Your task to perform on an android device: open chrome and create a bookmark for the current page Image 0: 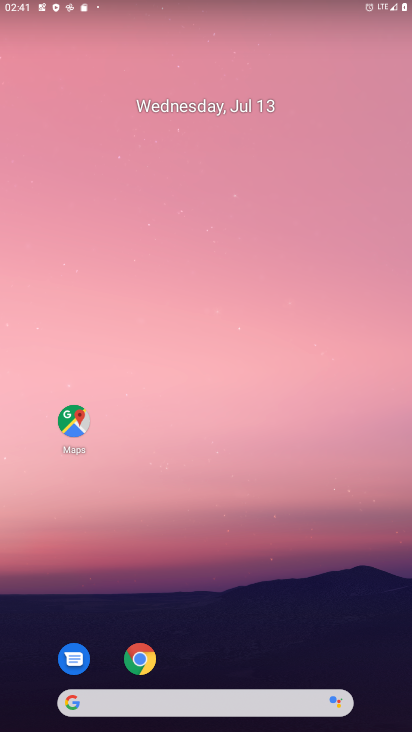
Step 0: click (135, 660)
Your task to perform on an android device: open chrome and create a bookmark for the current page Image 1: 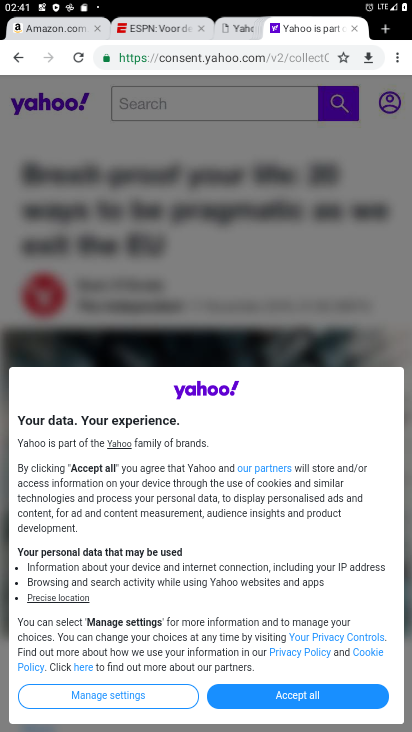
Step 1: click (345, 55)
Your task to perform on an android device: open chrome and create a bookmark for the current page Image 2: 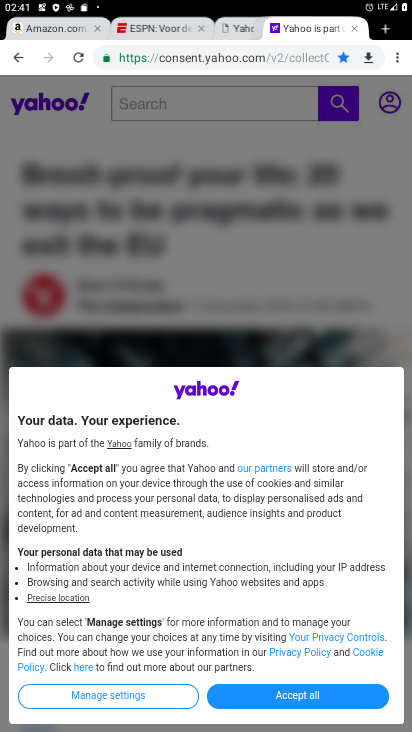
Step 2: task complete